Your task to perform on an android device: check storage Image 0: 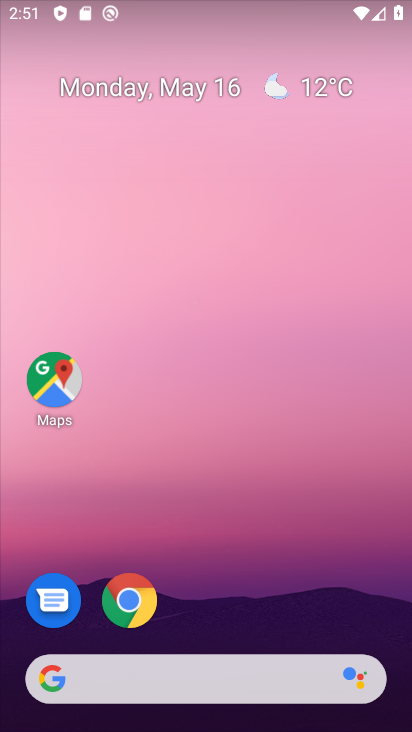
Step 0: drag from (197, 657) to (328, 15)
Your task to perform on an android device: check storage Image 1: 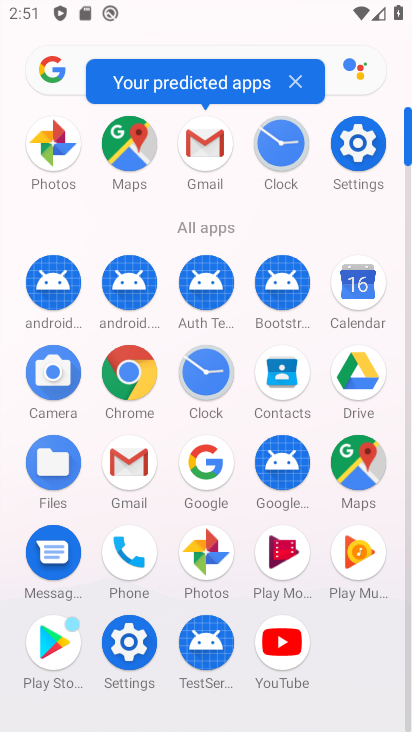
Step 1: click (120, 637)
Your task to perform on an android device: check storage Image 2: 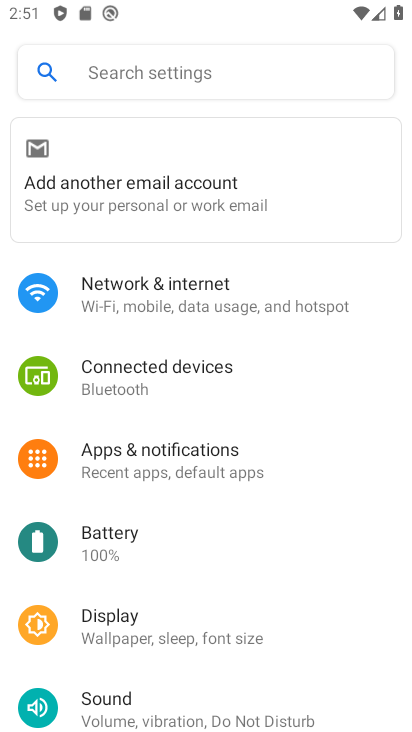
Step 2: drag from (183, 669) to (90, 159)
Your task to perform on an android device: check storage Image 3: 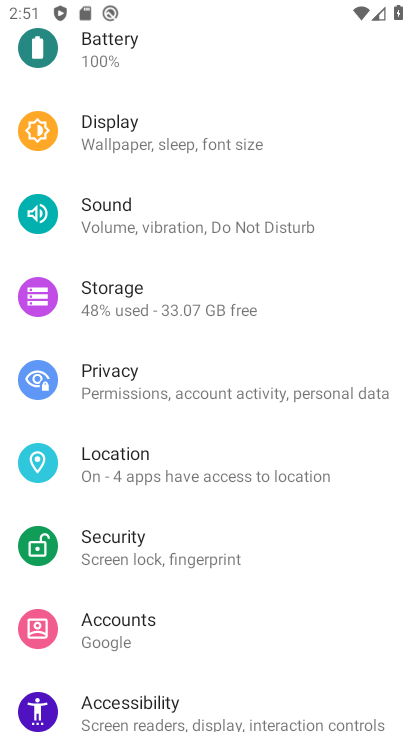
Step 3: drag from (129, 650) to (113, 423)
Your task to perform on an android device: check storage Image 4: 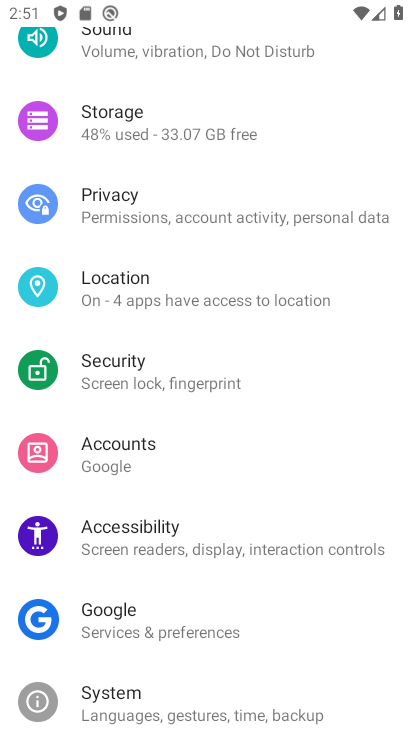
Step 4: click (136, 141)
Your task to perform on an android device: check storage Image 5: 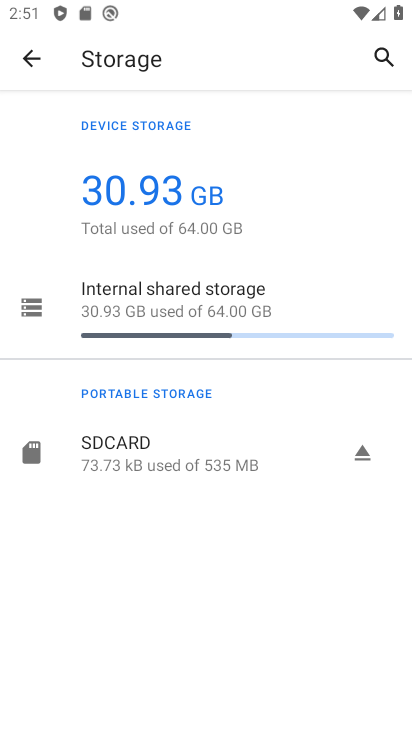
Step 5: task complete